Your task to perform on an android device: Add "duracell triple a" to the cart on ebay.com Image 0: 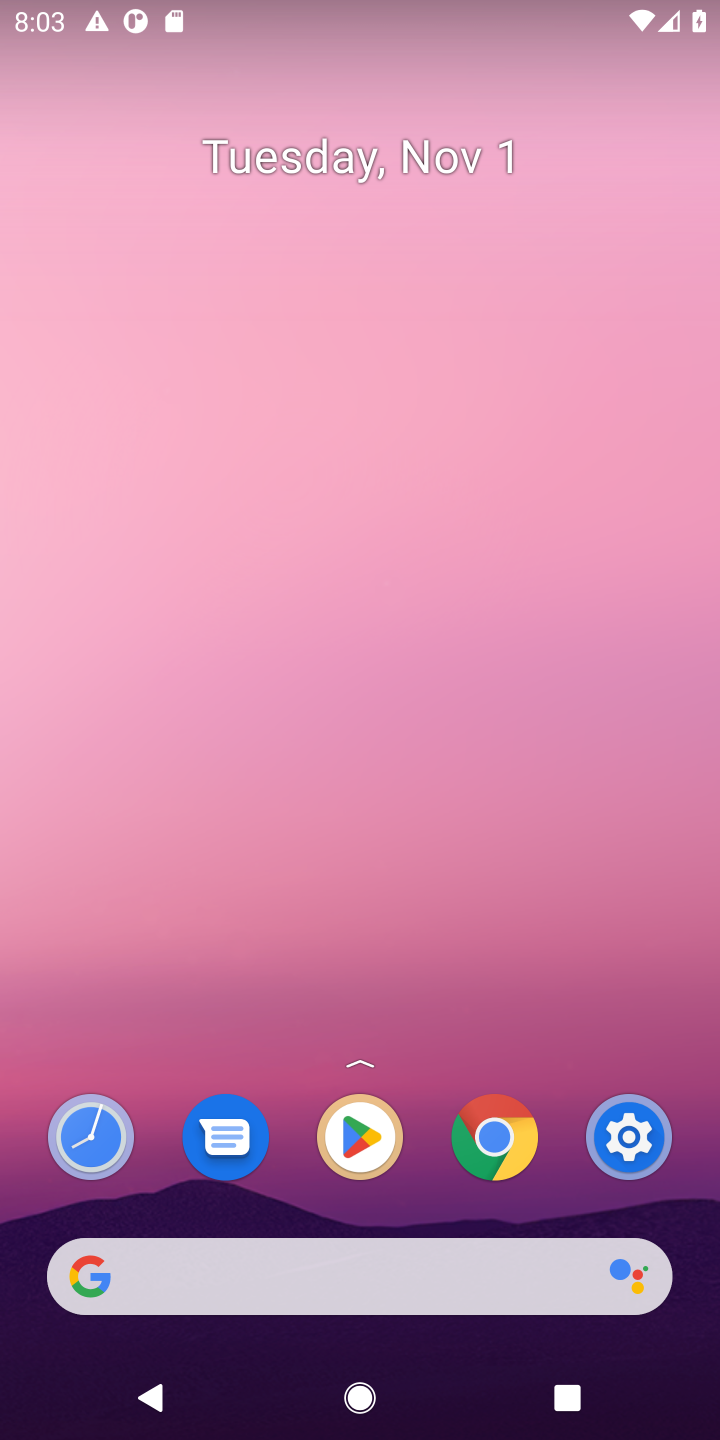
Step 0: click (330, 1278)
Your task to perform on an android device: Add "duracell triple a" to the cart on ebay.com Image 1: 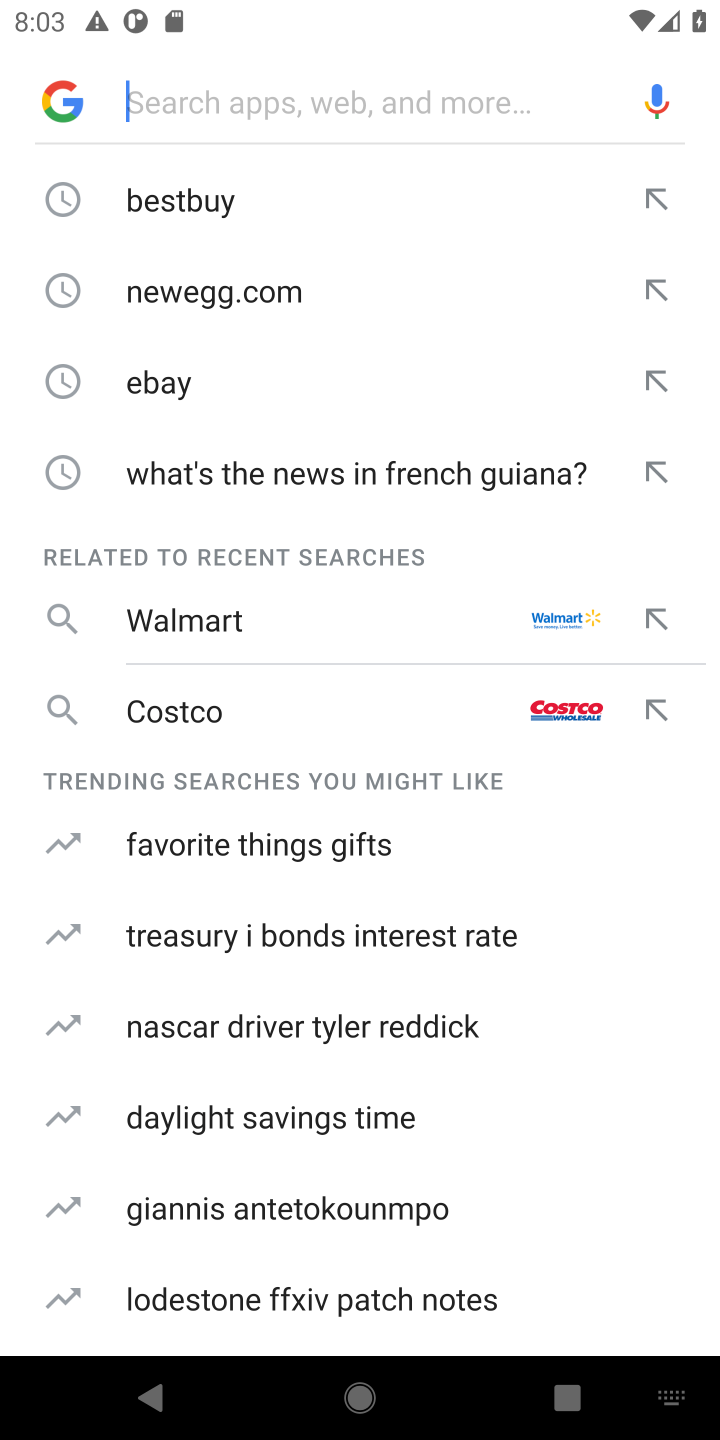
Step 1: type "ebay.com"
Your task to perform on an android device: Add "duracell triple a" to the cart on ebay.com Image 2: 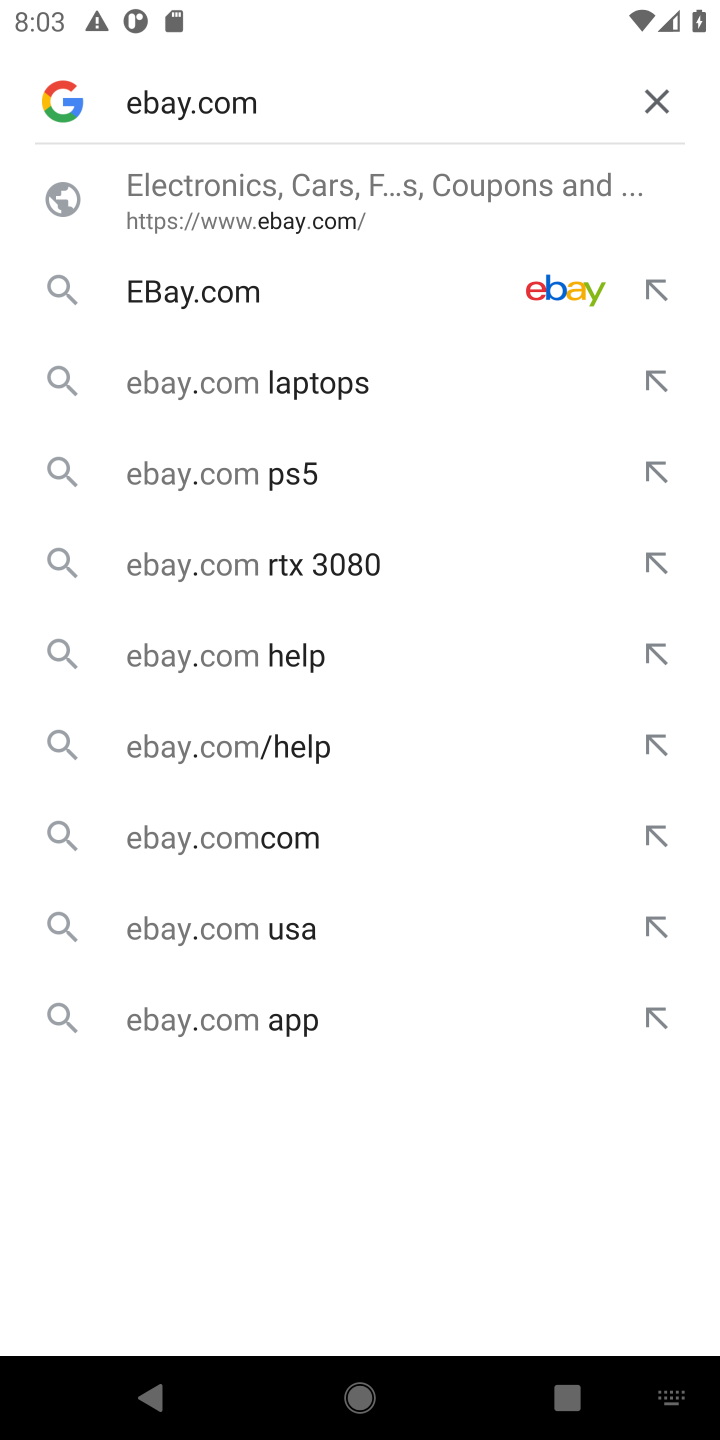
Step 2: click (275, 290)
Your task to perform on an android device: Add "duracell triple a" to the cart on ebay.com Image 3: 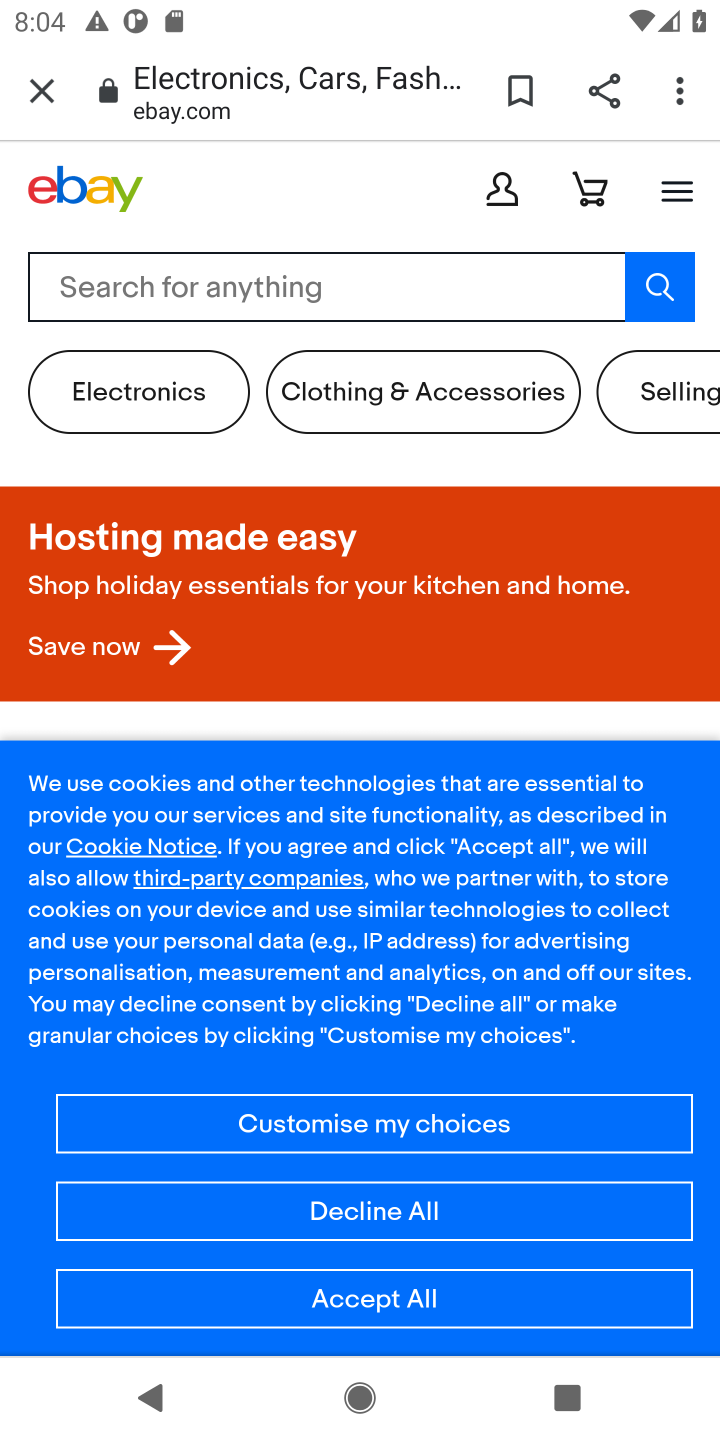
Step 3: click (335, 265)
Your task to perform on an android device: Add "duracell triple a" to the cart on ebay.com Image 4: 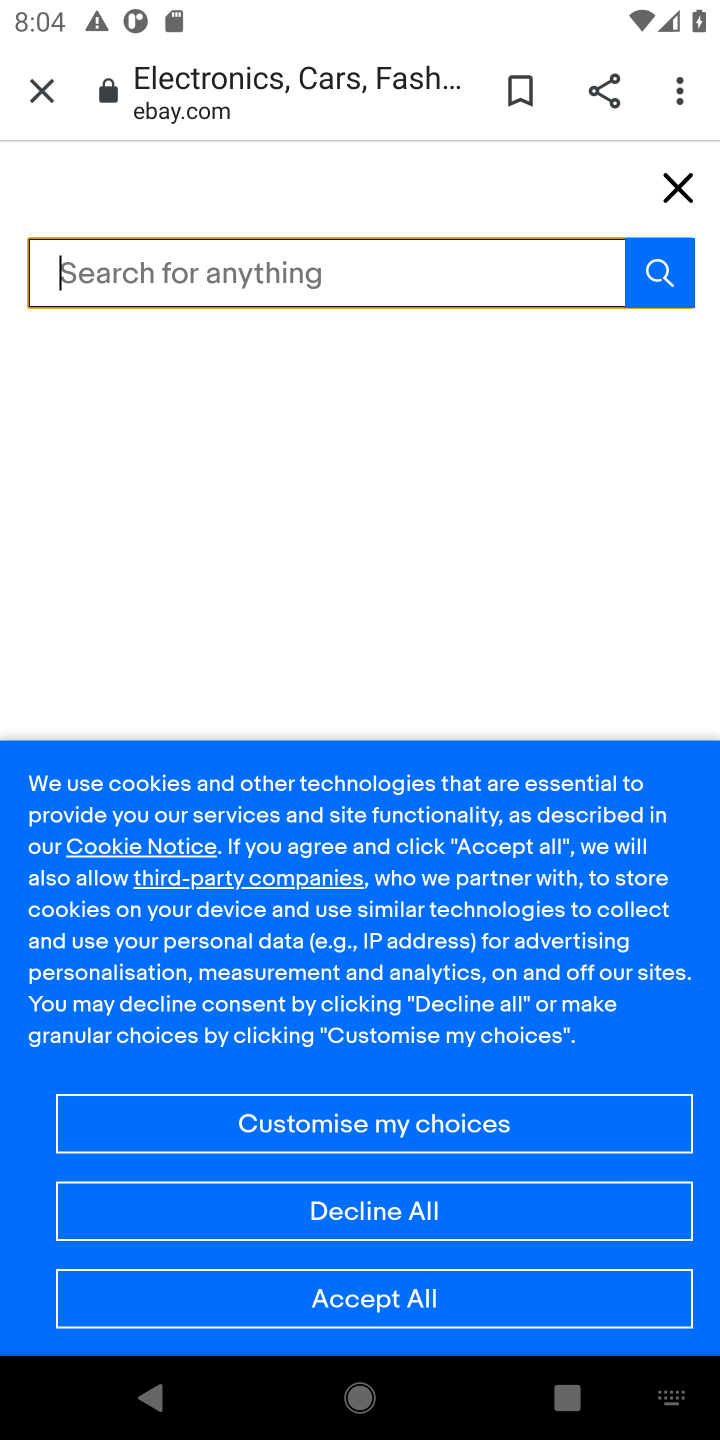
Step 4: type "duracell triple a"
Your task to perform on an android device: Add "duracell triple a" to the cart on ebay.com Image 5: 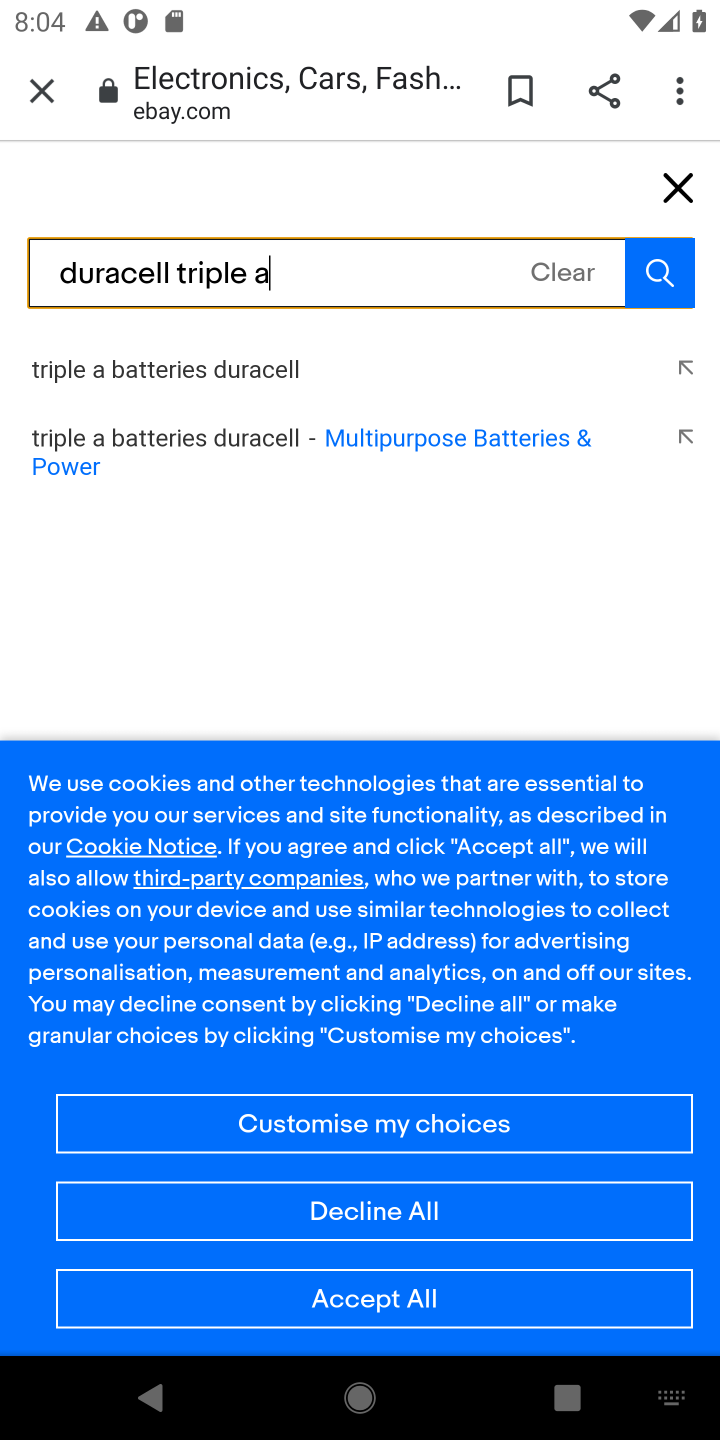
Step 5: task complete